Your task to perform on an android device: Clear the shopping cart on bestbuy. Add "razer thresher" to the cart on bestbuy, then select checkout. Image 0: 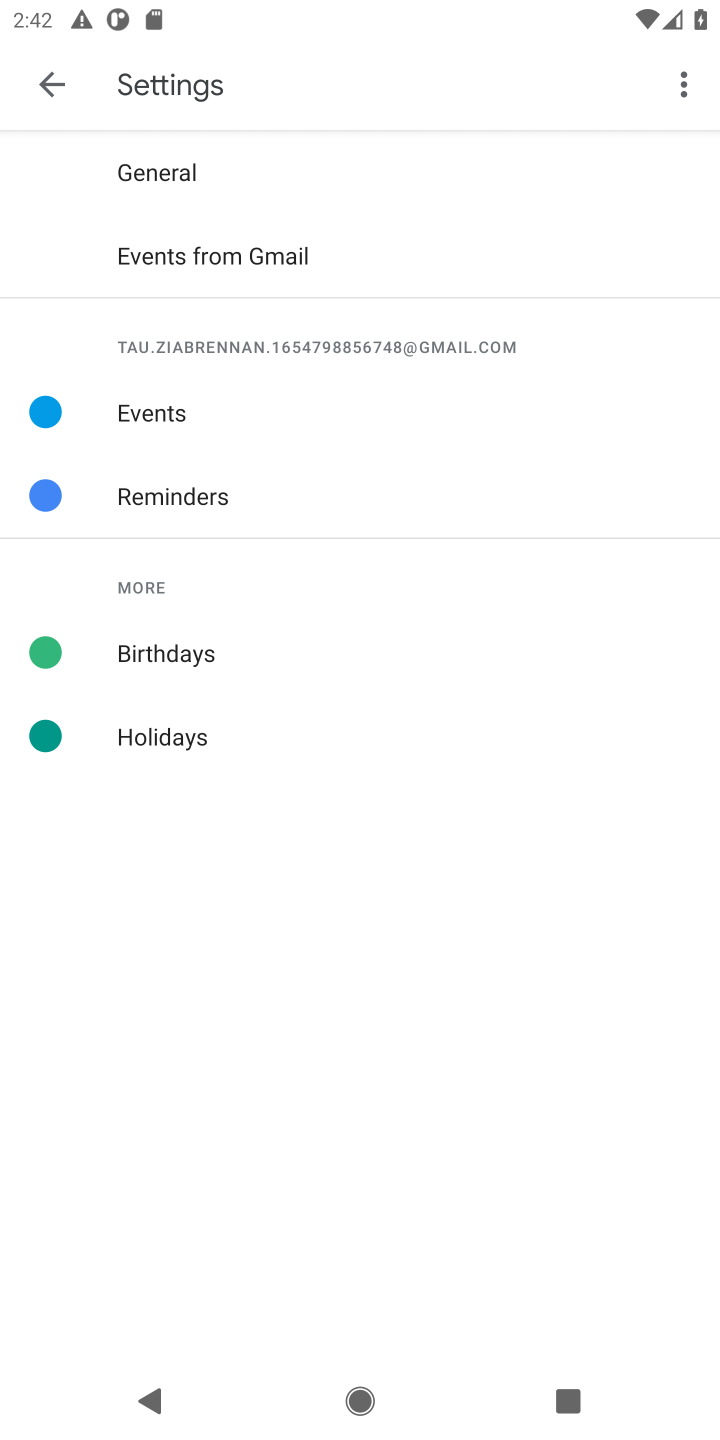
Step 0: press home button
Your task to perform on an android device: Clear the shopping cart on bestbuy. Add "razer thresher" to the cart on bestbuy, then select checkout. Image 1: 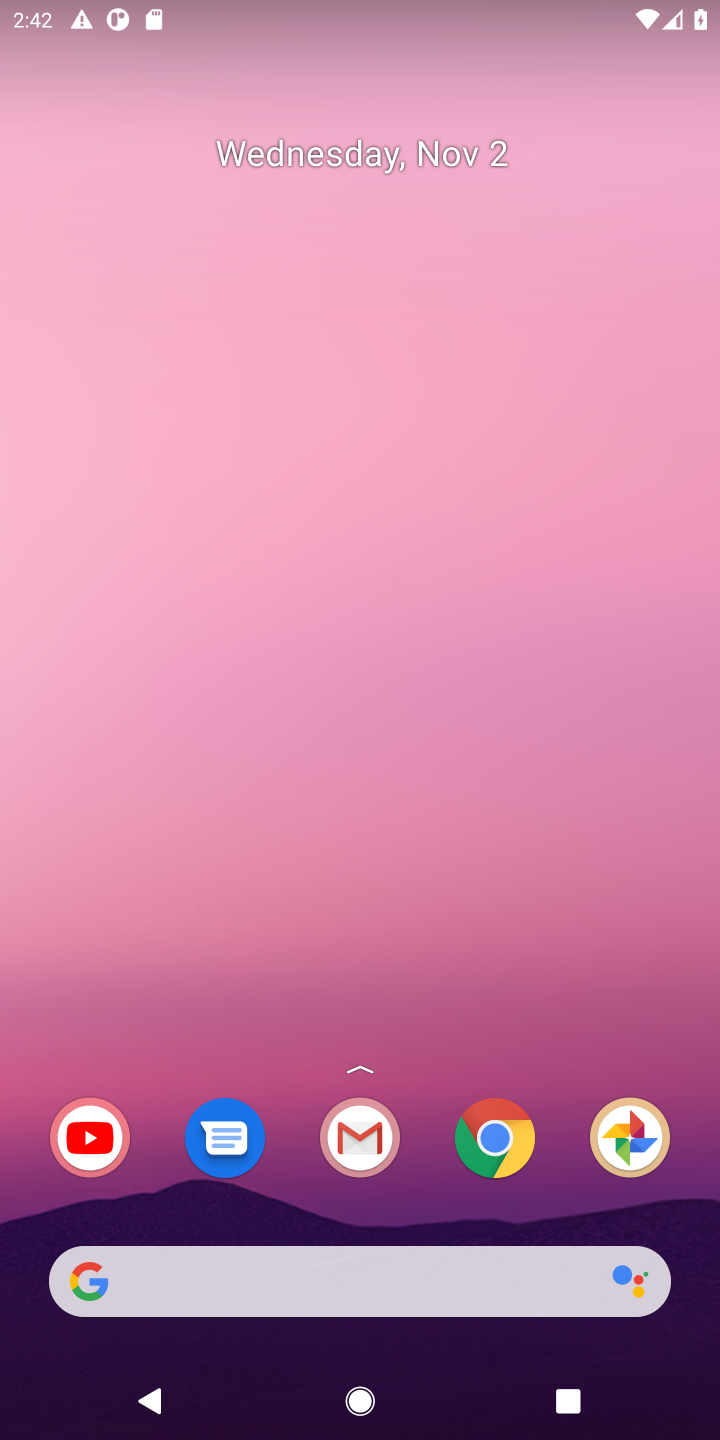
Step 1: click (168, 1272)
Your task to perform on an android device: Clear the shopping cart on bestbuy. Add "razer thresher" to the cart on bestbuy, then select checkout. Image 2: 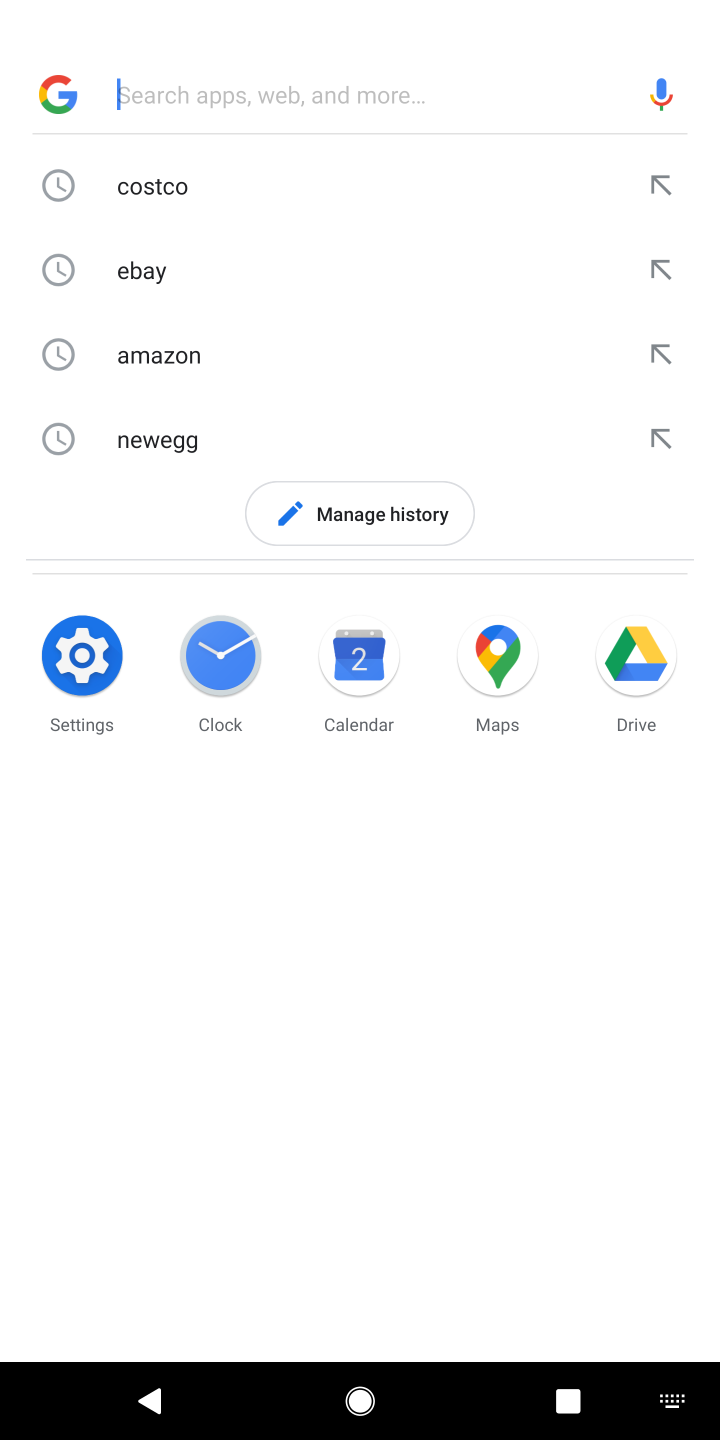
Step 2: press enter
Your task to perform on an android device: Clear the shopping cart on bestbuy. Add "razer thresher" to the cart on bestbuy, then select checkout. Image 3: 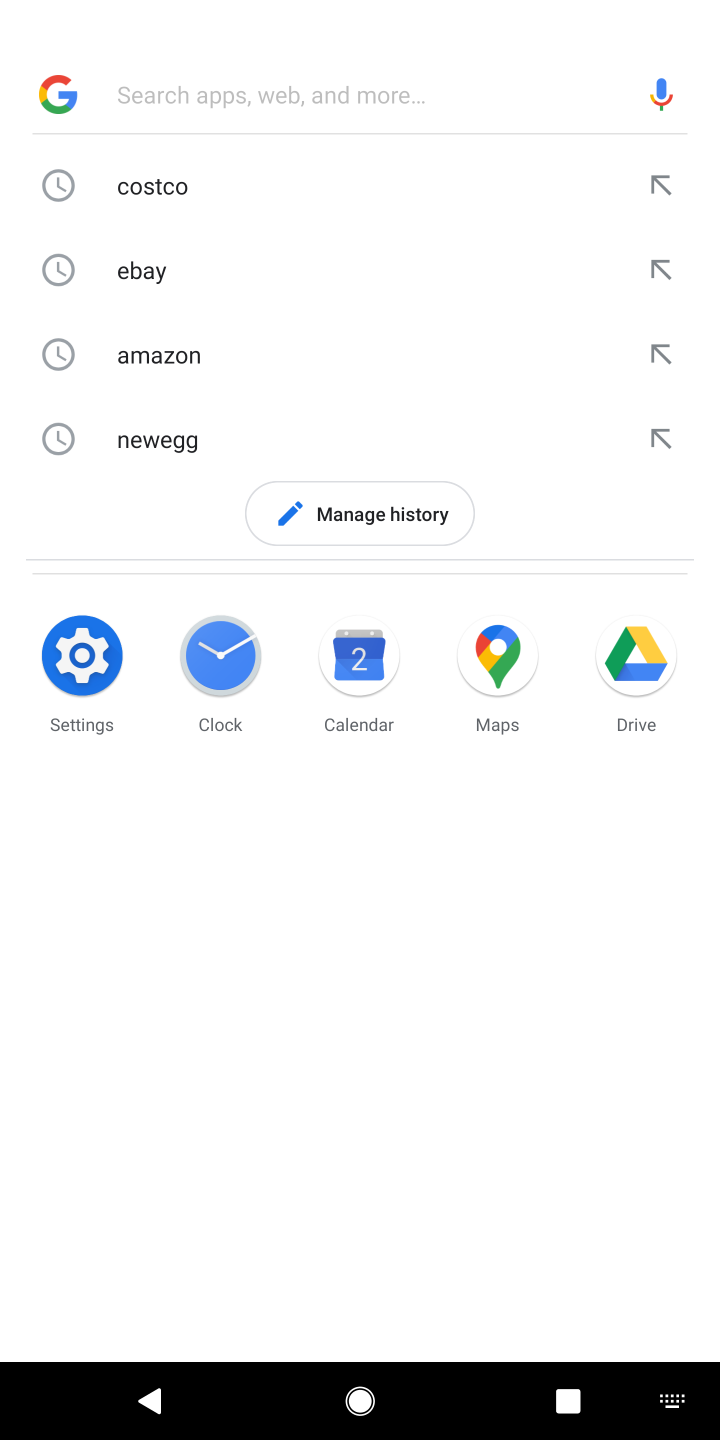
Step 3: type "bestbuy"
Your task to perform on an android device: Clear the shopping cart on bestbuy. Add "razer thresher" to the cart on bestbuy, then select checkout. Image 4: 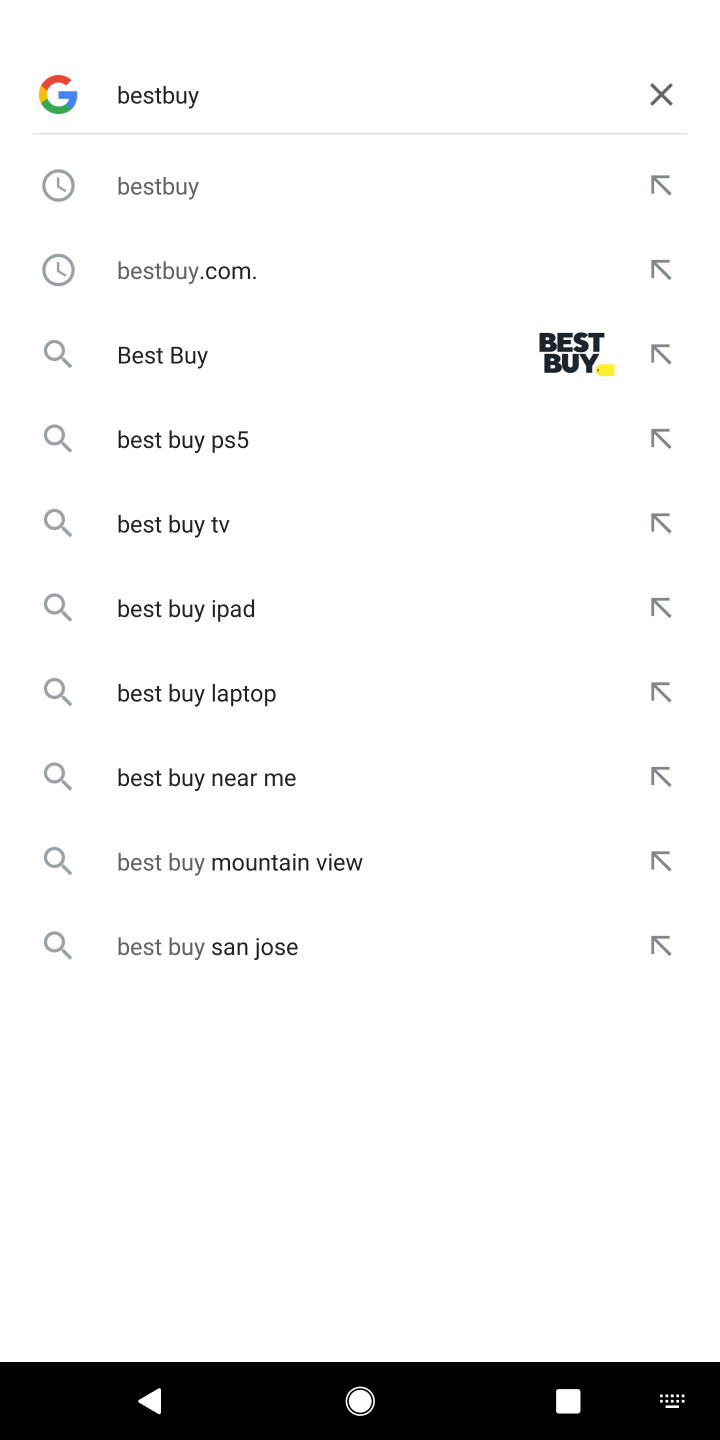
Step 4: press enter
Your task to perform on an android device: Clear the shopping cart on bestbuy. Add "razer thresher" to the cart on bestbuy, then select checkout. Image 5: 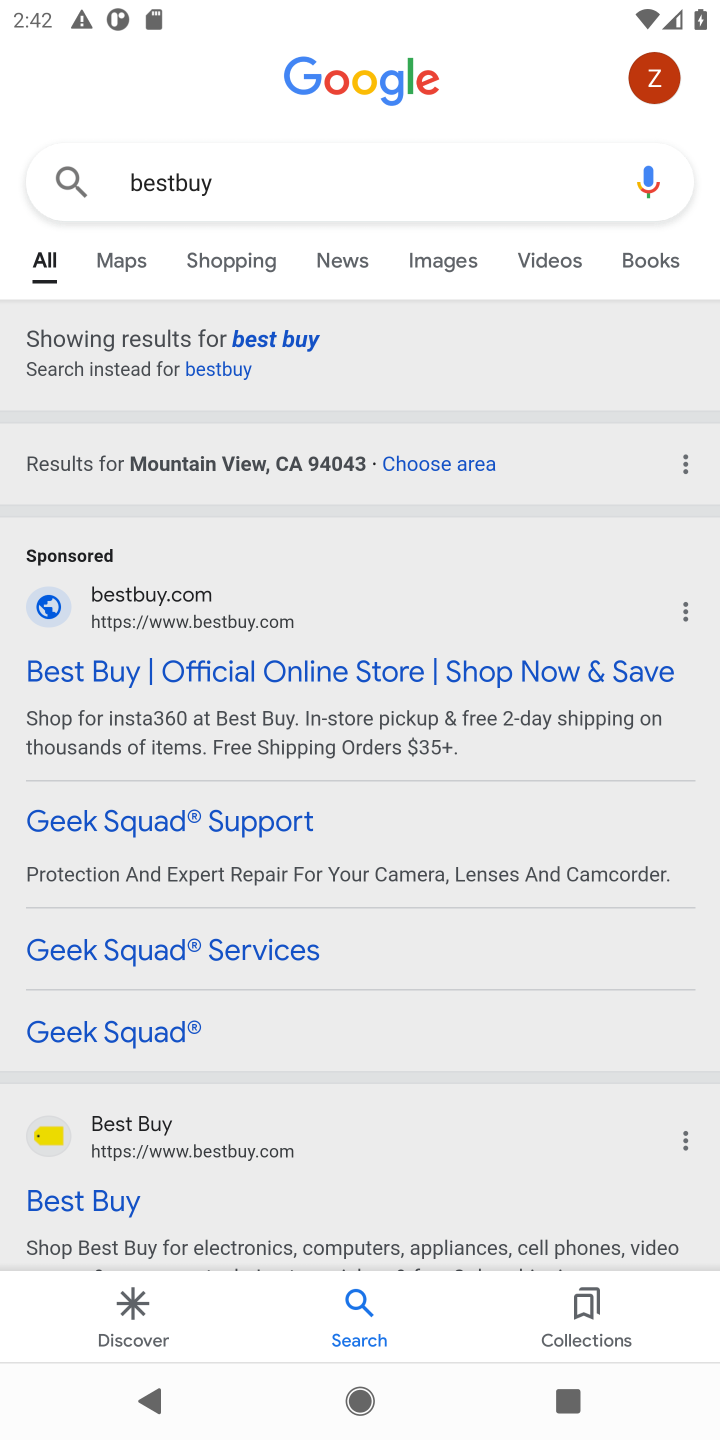
Step 5: click (357, 670)
Your task to perform on an android device: Clear the shopping cart on bestbuy. Add "razer thresher" to the cart on bestbuy, then select checkout. Image 6: 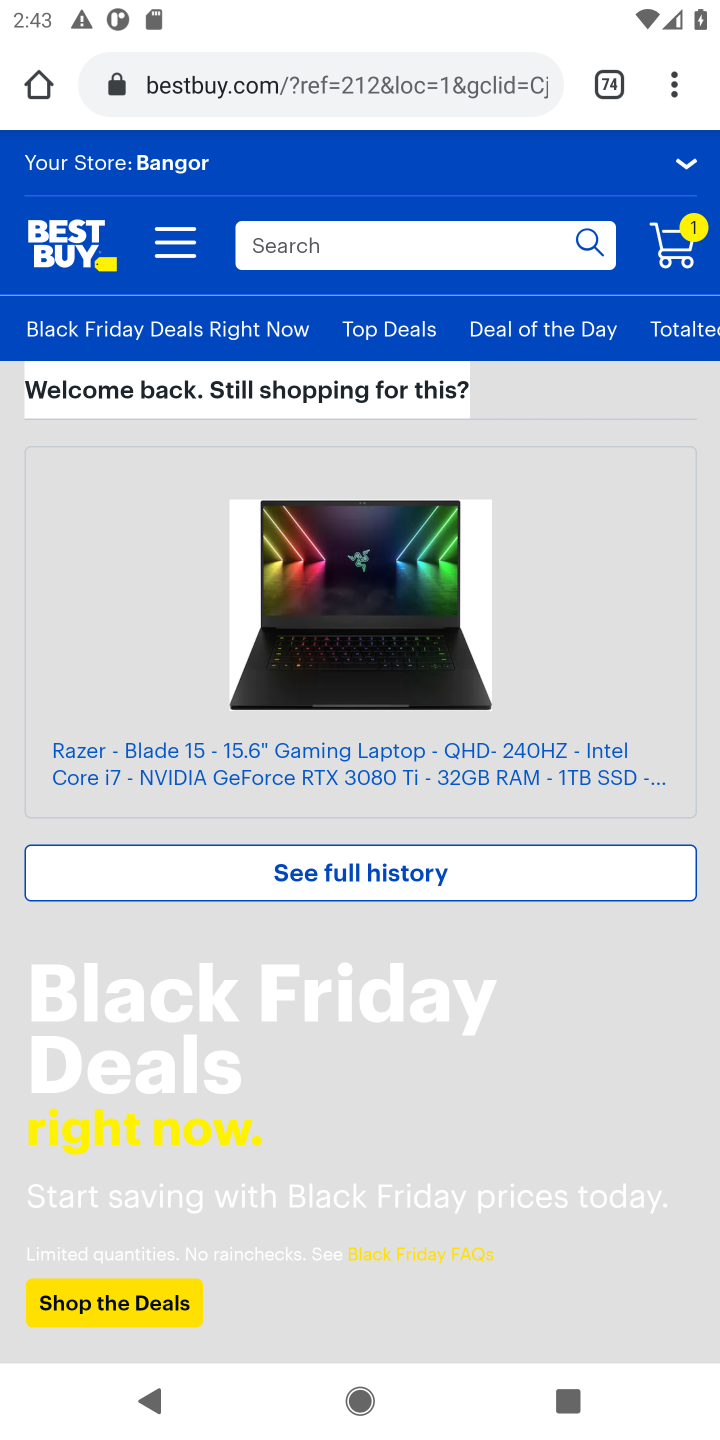
Step 6: click (683, 242)
Your task to perform on an android device: Clear the shopping cart on bestbuy. Add "razer thresher" to the cart on bestbuy, then select checkout. Image 7: 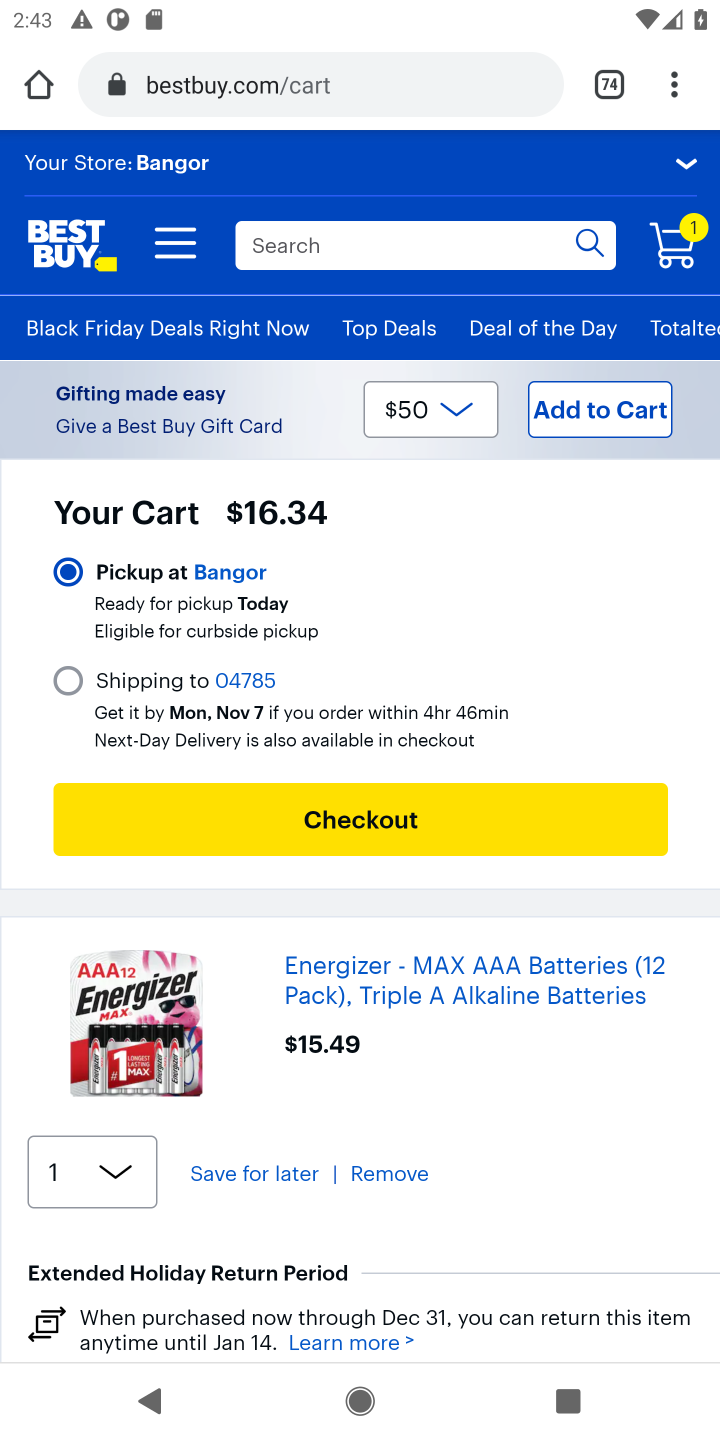
Step 7: click (390, 1172)
Your task to perform on an android device: Clear the shopping cart on bestbuy. Add "razer thresher" to the cart on bestbuy, then select checkout. Image 8: 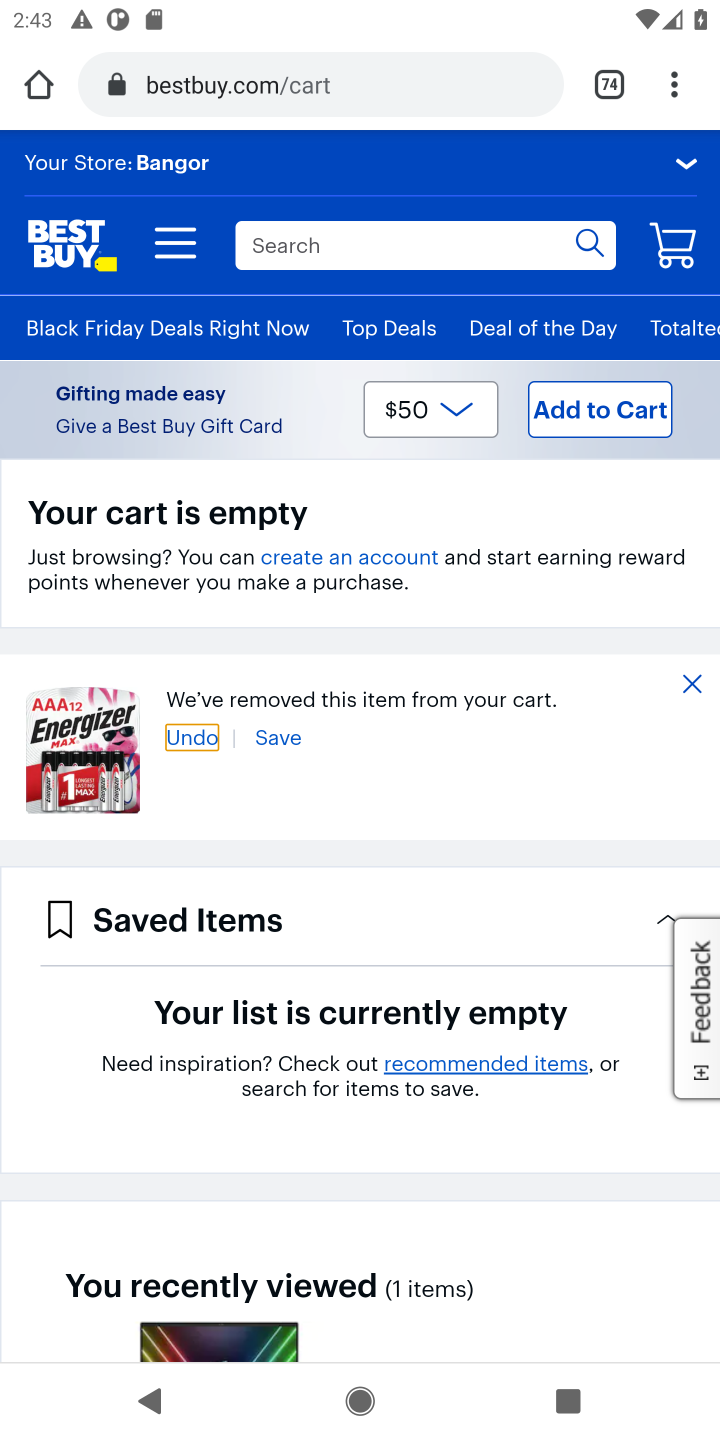
Step 8: click (318, 230)
Your task to perform on an android device: Clear the shopping cart on bestbuy. Add "razer thresher" to the cart on bestbuy, then select checkout. Image 9: 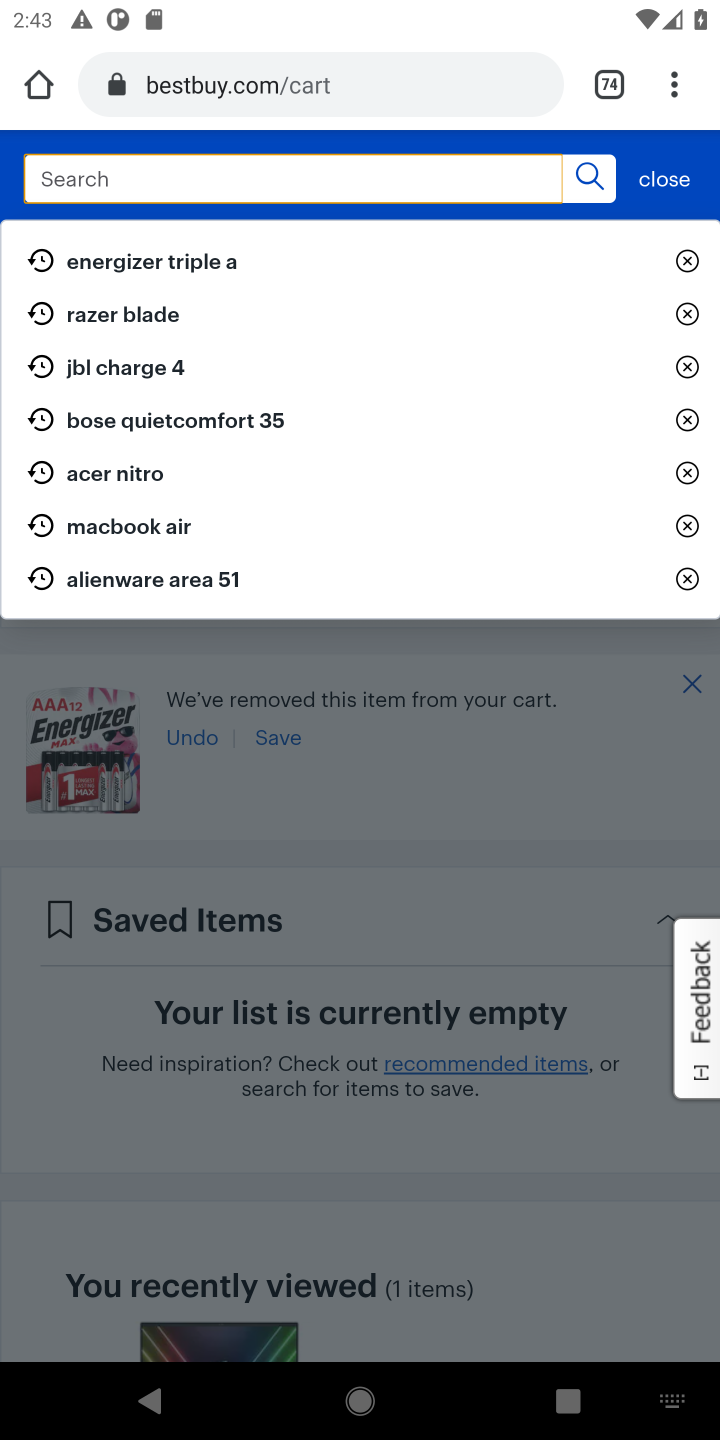
Step 9: type "razer thresher"
Your task to perform on an android device: Clear the shopping cart on bestbuy. Add "razer thresher" to the cart on bestbuy, then select checkout. Image 10: 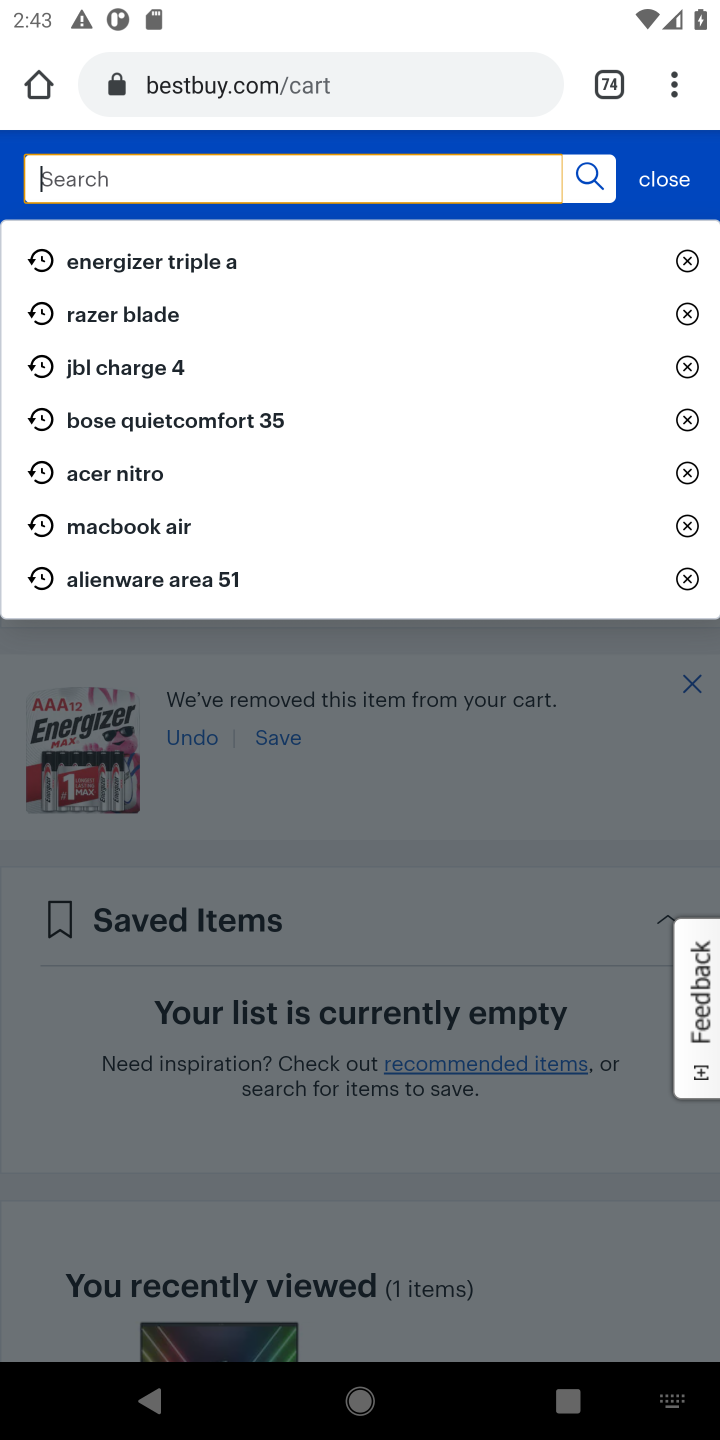
Step 10: press enter
Your task to perform on an android device: Clear the shopping cart on bestbuy. Add "razer thresher" to the cart on bestbuy, then select checkout. Image 11: 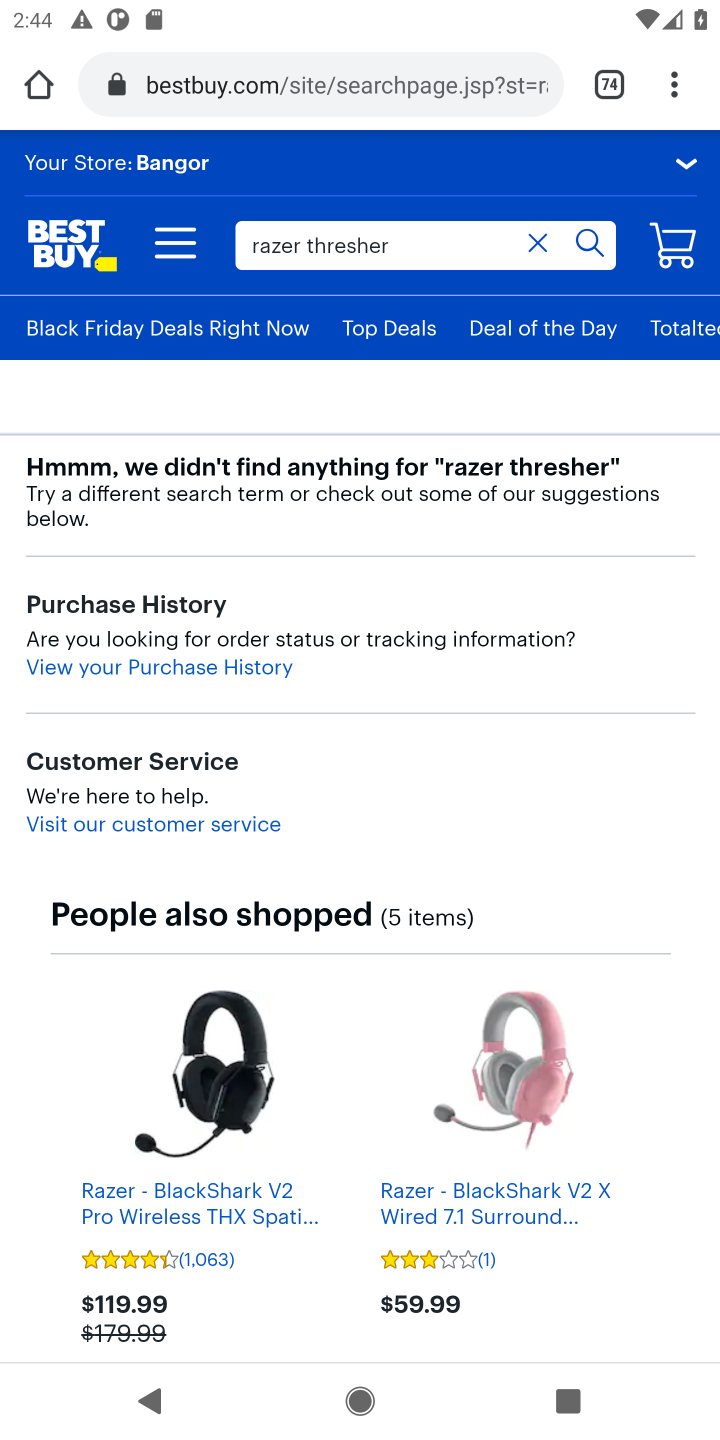
Step 11: task complete